Your task to perform on an android device: toggle improve location accuracy Image 0: 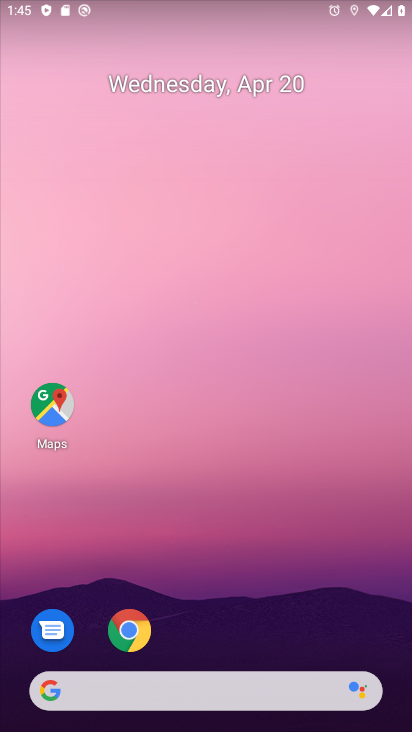
Step 0: drag from (208, 582) to (88, 127)
Your task to perform on an android device: toggle improve location accuracy Image 1: 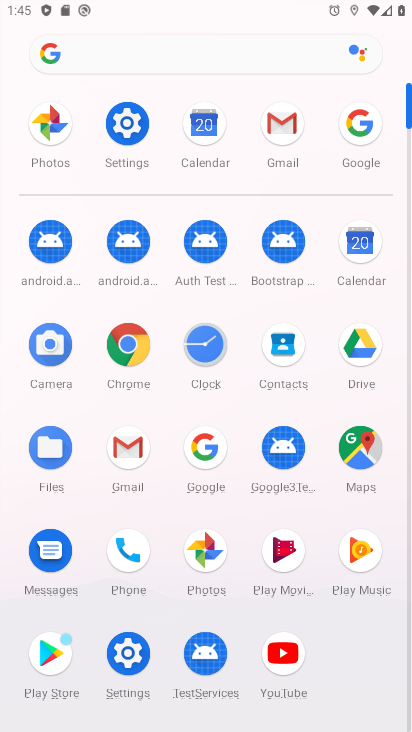
Step 1: click (126, 658)
Your task to perform on an android device: toggle improve location accuracy Image 2: 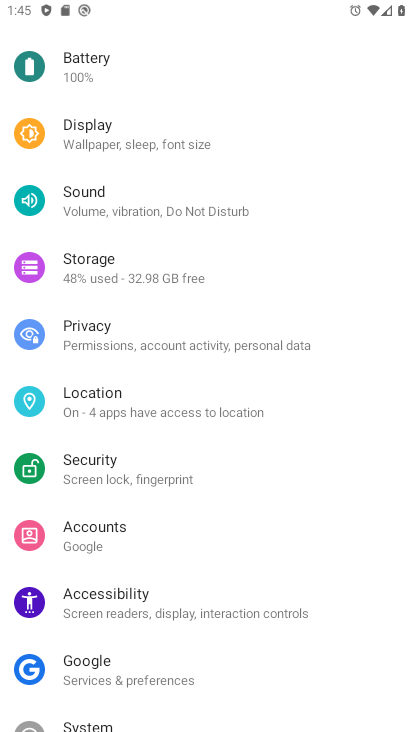
Step 2: click (113, 409)
Your task to perform on an android device: toggle improve location accuracy Image 3: 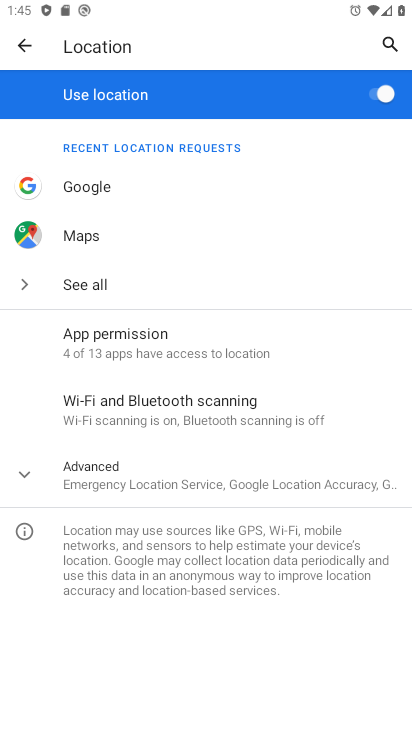
Step 3: click (120, 486)
Your task to perform on an android device: toggle improve location accuracy Image 4: 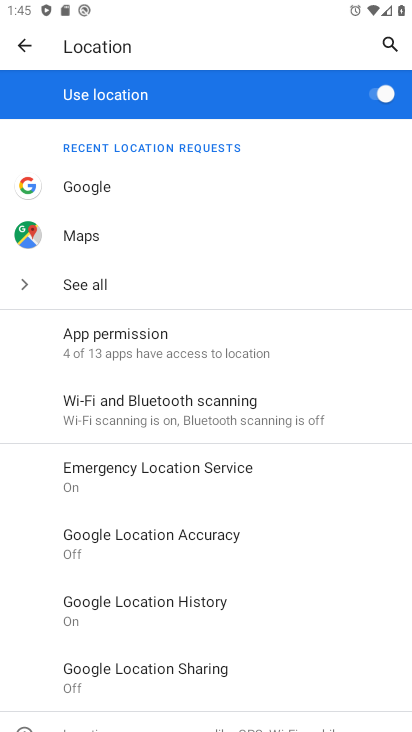
Step 4: click (130, 537)
Your task to perform on an android device: toggle improve location accuracy Image 5: 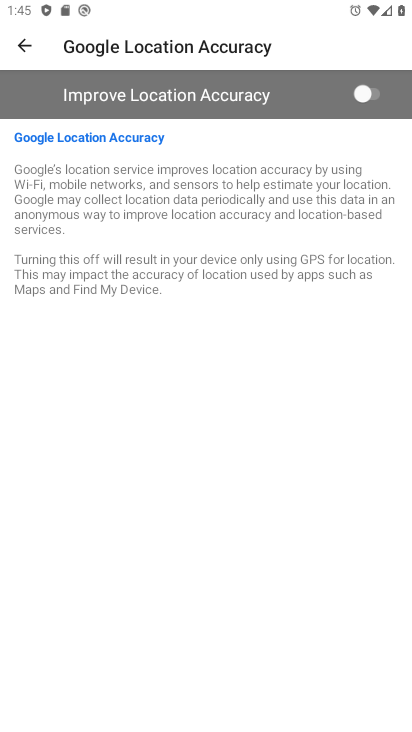
Step 5: click (369, 100)
Your task to perform on an android device: toggle improve location accuracy Image 6: 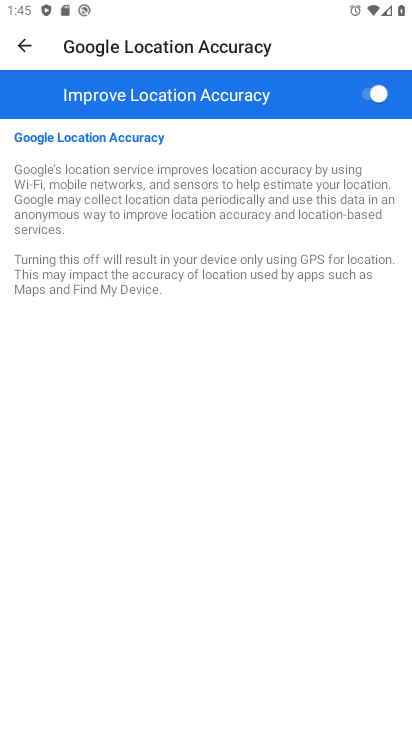
Step 6: task complete